Your task to perform on an android device: Go to ESPN.com Image 0: 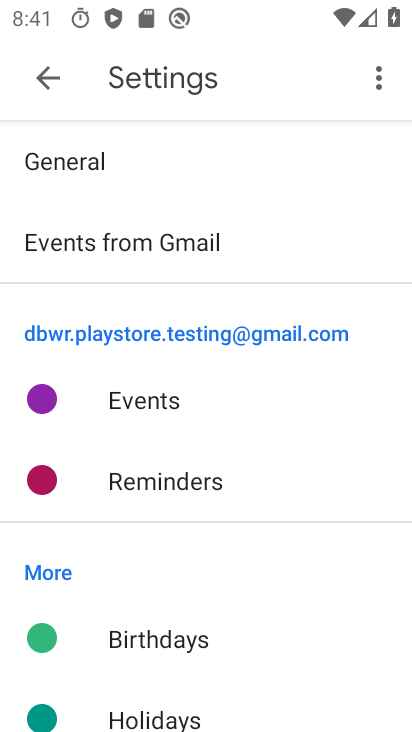
Step 0: press home button
Your task to perform on an android device: Go to ESPN.com Image 1: 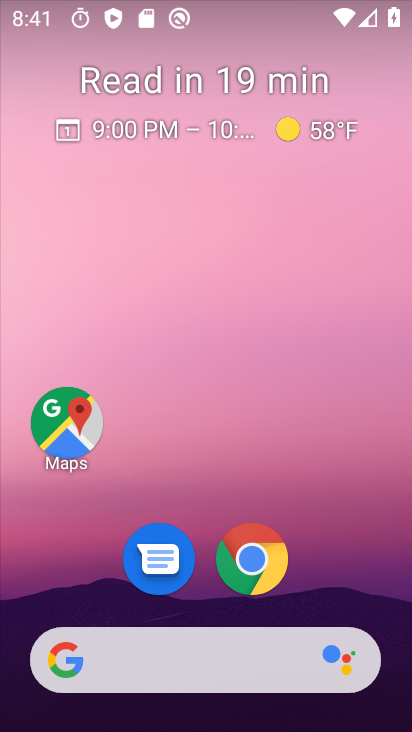
Step 1: click (263, 562)
Your task to perform on an android device: Go to ESPN.com Image 2: 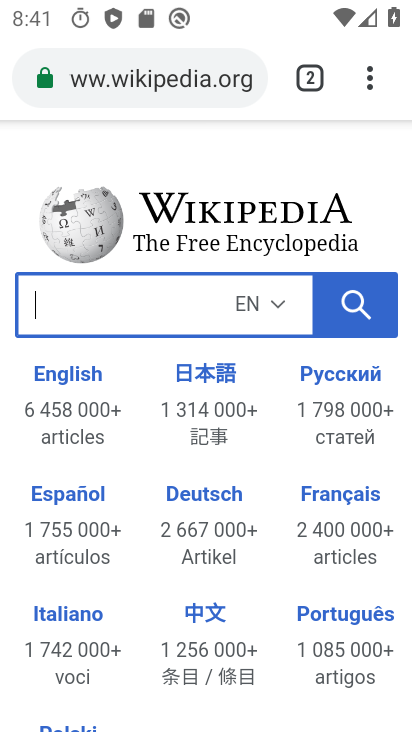
Step 2: click (162, 77)
Your task to perform on an android device: Go to ESPN.com Image 3: 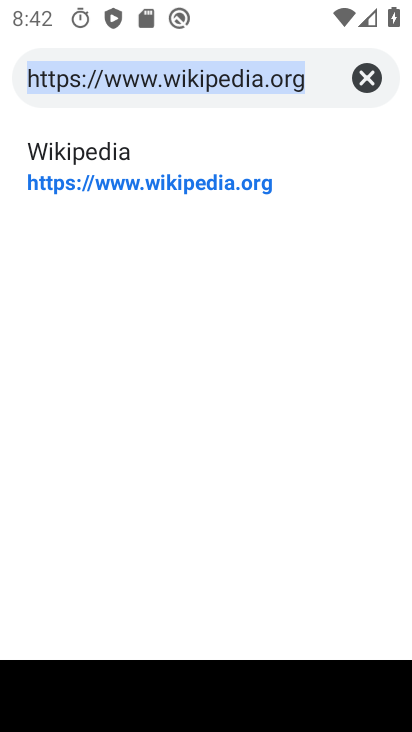
Step 3: type "ESPN.com"
Your task to perform on an android device: Go to ESPN.com Image 4: 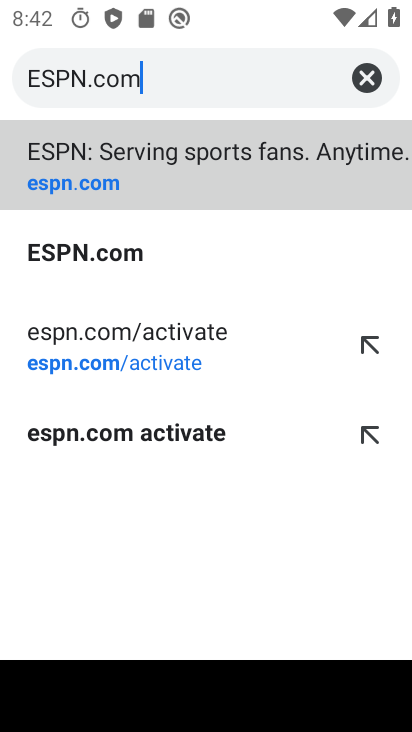
Step 4: type ""
Your task to perform on an android device: Go to ESPN.com Image 5: 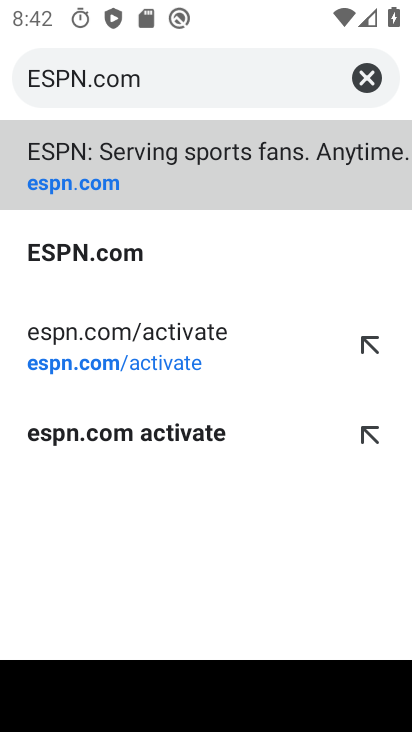
Step 5: click (109, 240)
Your task to perform on an android device: Go to ESPN.com Image 6: 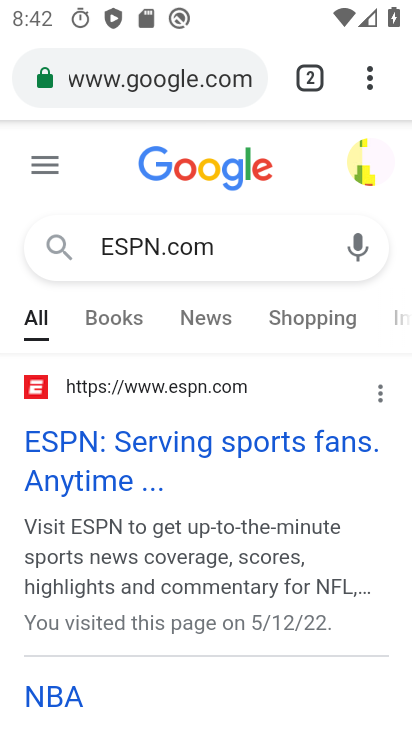
Step 6: click (72, 438)
Your task to perform on an android device: Go to ESPN.com Image 7: 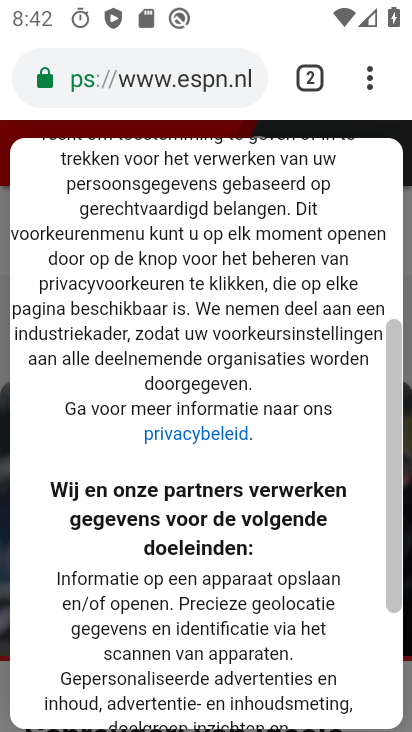
Step 7: task complete